Your task to perform on an android device: Open calendar and show me the first week of next month Image 0: 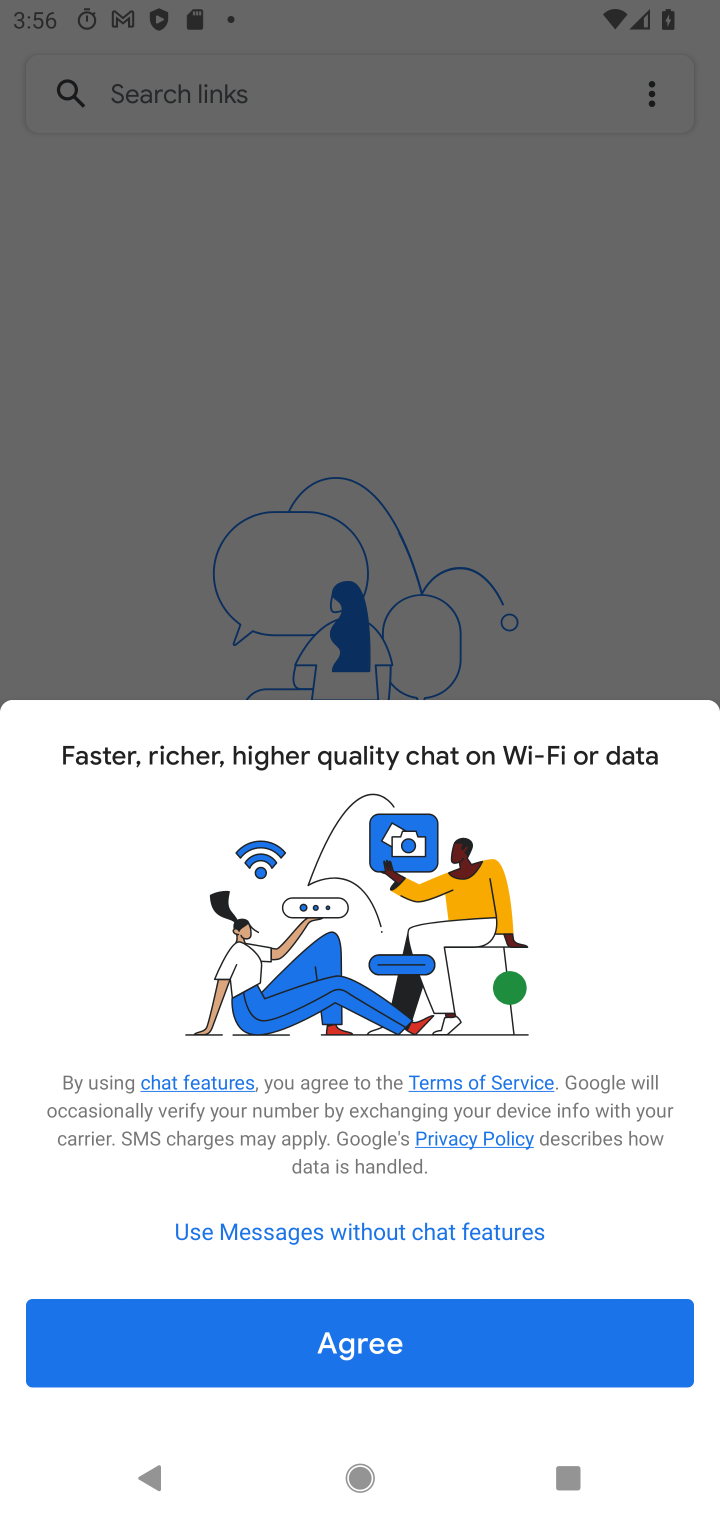
Step 0: press home button
Your task to perform on an android device: Open calendar and show me the first week of next month Image 1: 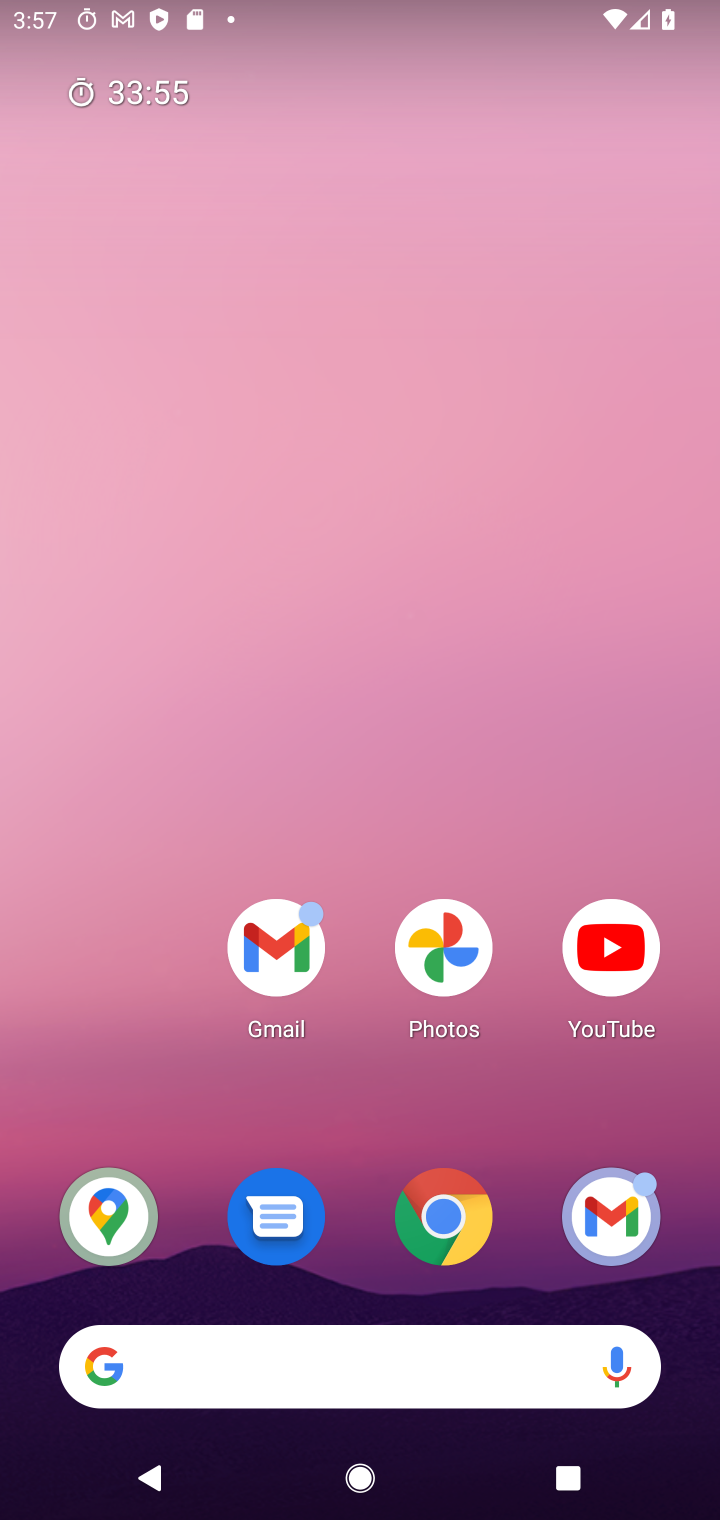
Step 1: drag from (667, 434) to (702, 230)
Your task to perform on an android device: Open calendar and show me the first week of next month Image 2: 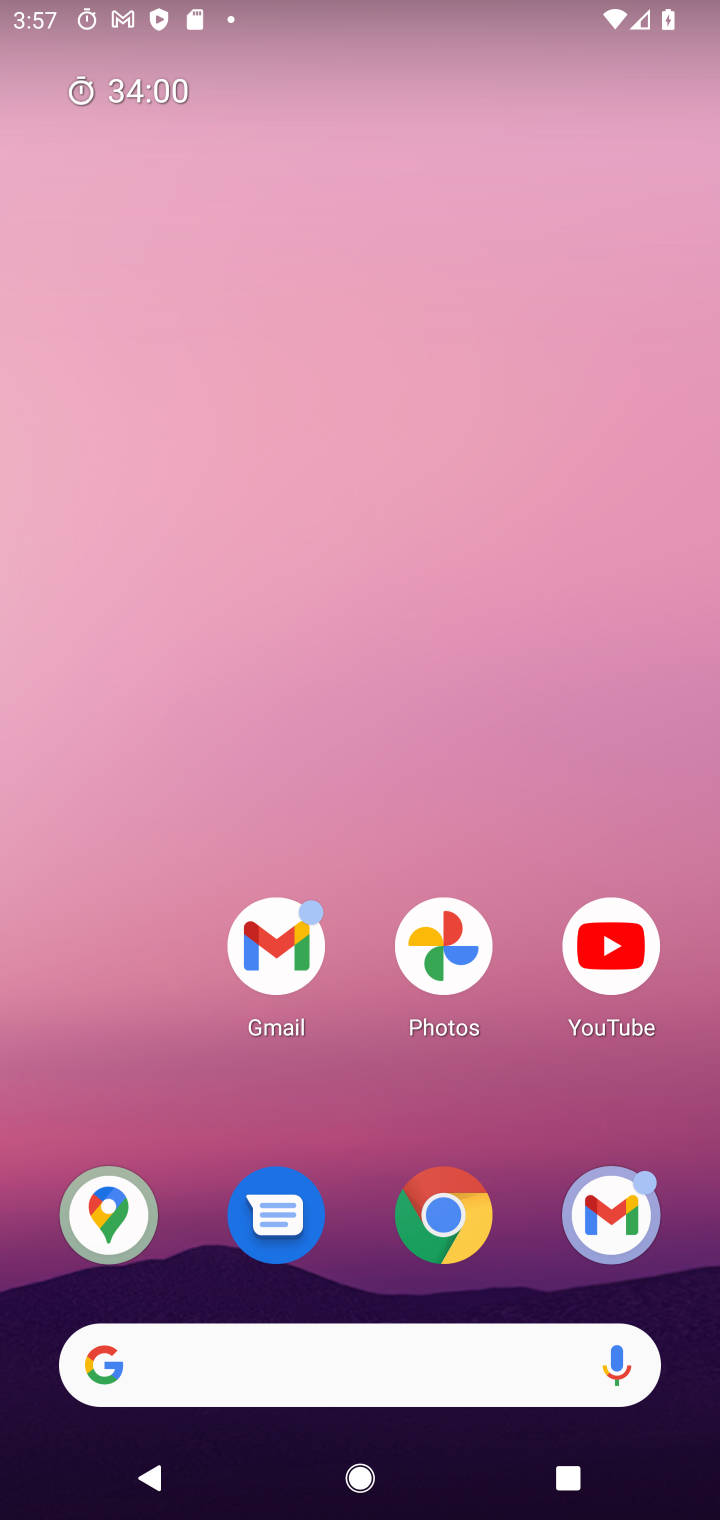
Step 2: drag from (488, 477) to (579, 341)
Your task to perform on an android device: Open calendar and show me the first week of next month Image 3: 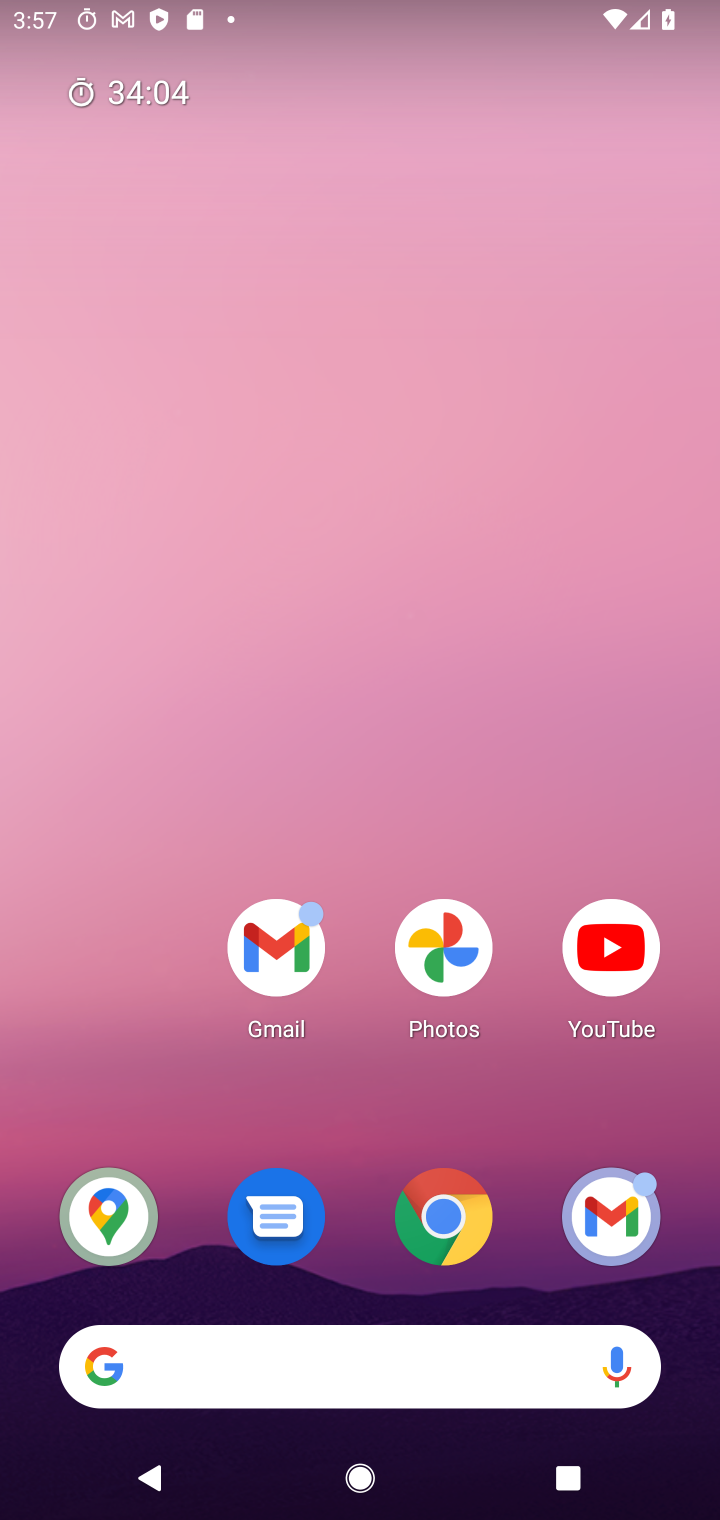
Step 3: drag from (88, 1164) to (708, 110)
Your task to perform on an android device: Open calendar and show me the first week of next month Image 4: 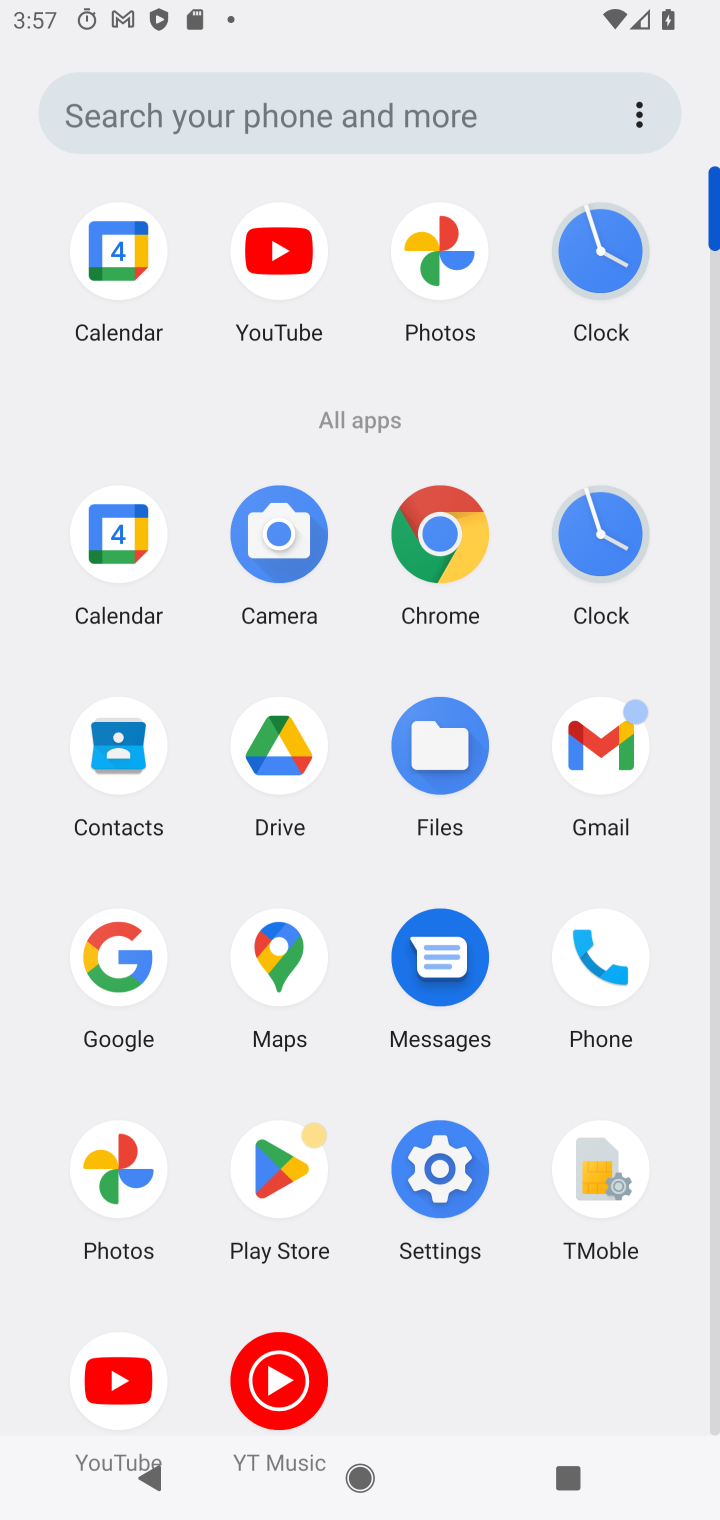
Step 4: click (121, 545)
Your task to perform on an android device: Open calendar and show me the first week of next month Image 5: 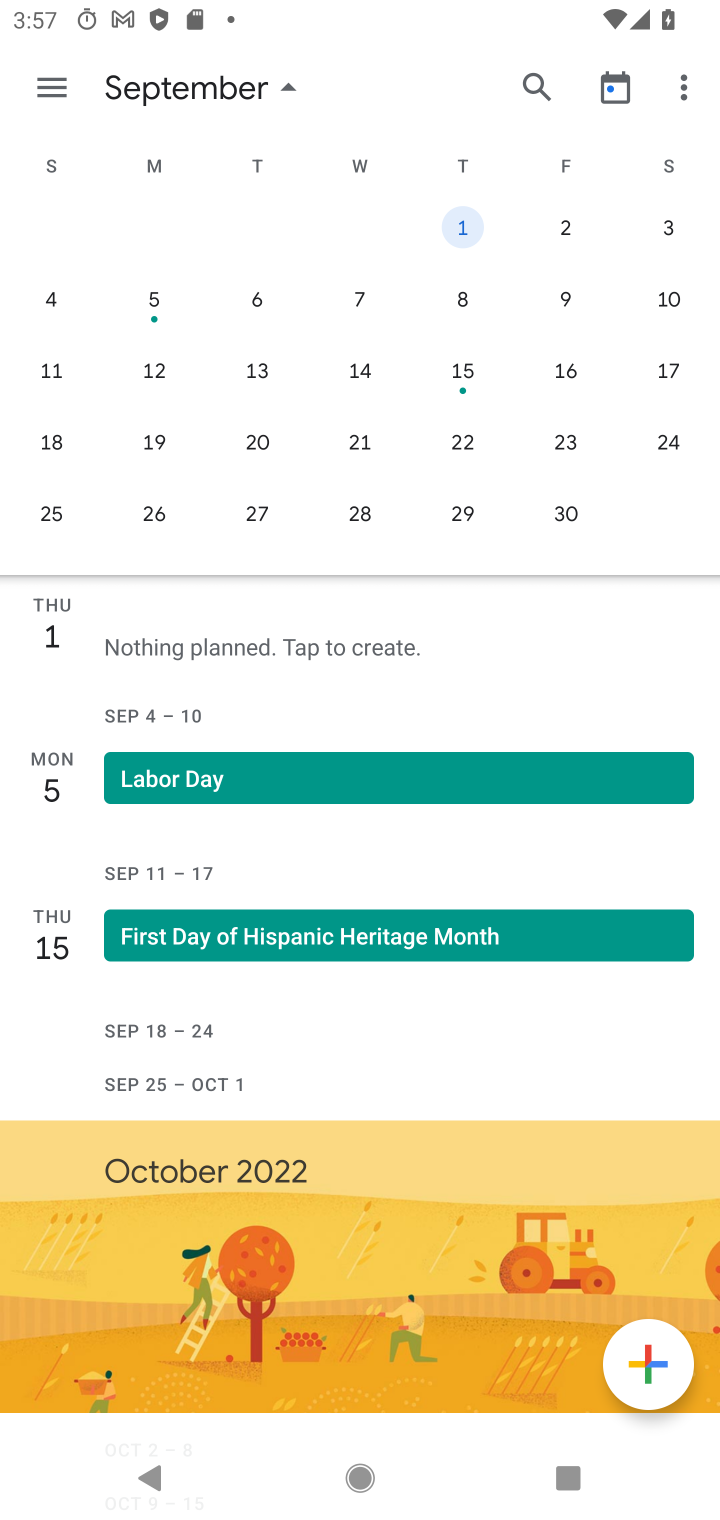
Step 5: click (571, 220)
Your task to perform on an android device: Open calendar and show me the first week of next month Image 6: 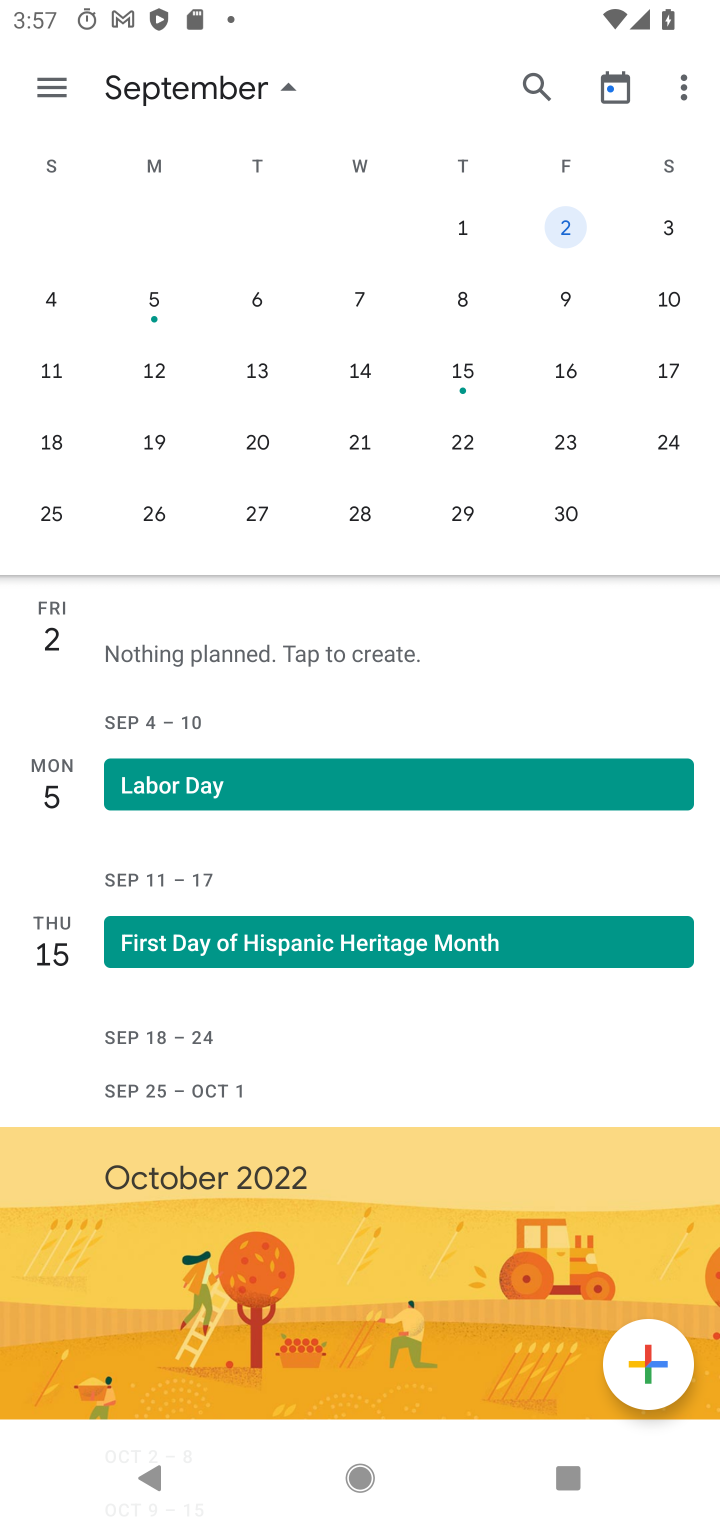
Step 6: task complete